Your task to perform on an android device: Search for sushi restaurants on Maps Image 0: 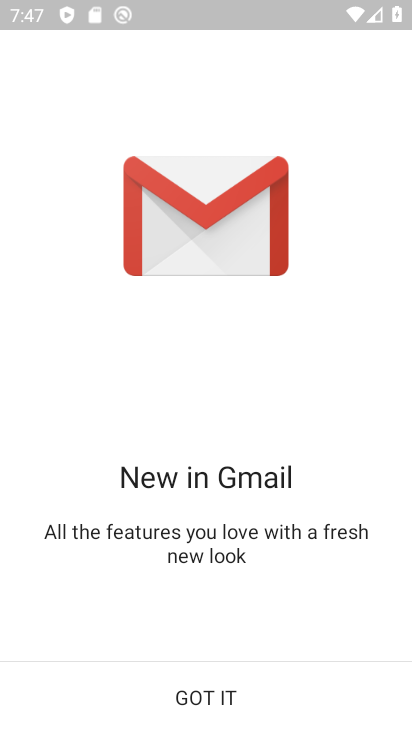
Step 0: drag from (333, 586) to (342, 326)
Your task to perform on an android device: Search for sushi restaurants on Maps Image 1: 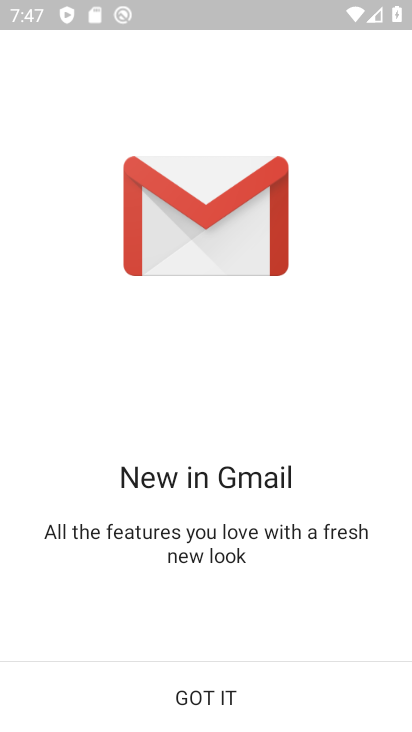
Step 1: press home button
Your task to perform on an android device: Search for sushi restaurants on Maps Image 2: 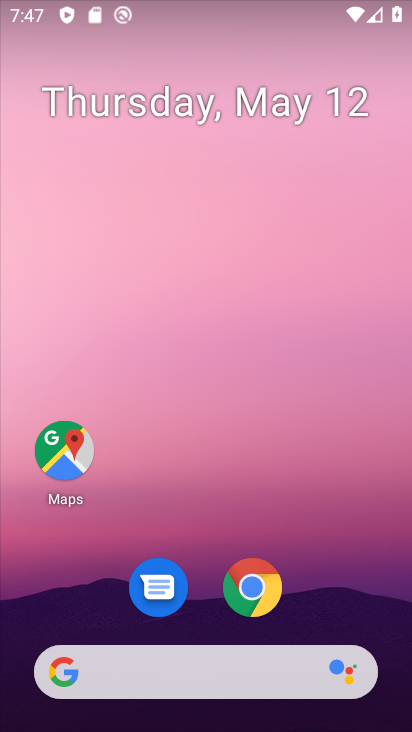
Step 2: drag from (323, 569) to (360, 330)
Your task to perform on an android device: Search for sushi restaurants on Maps Image 3: 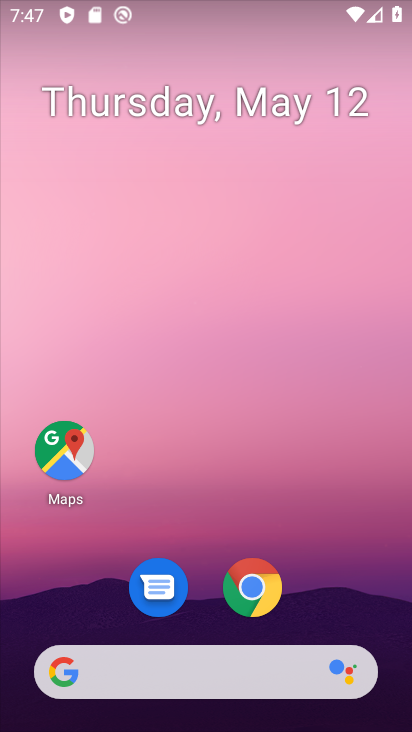
Step 3: click (253, 583)
Your task to perform on an android device: Search for sushi restaurants on Maps Image 4: 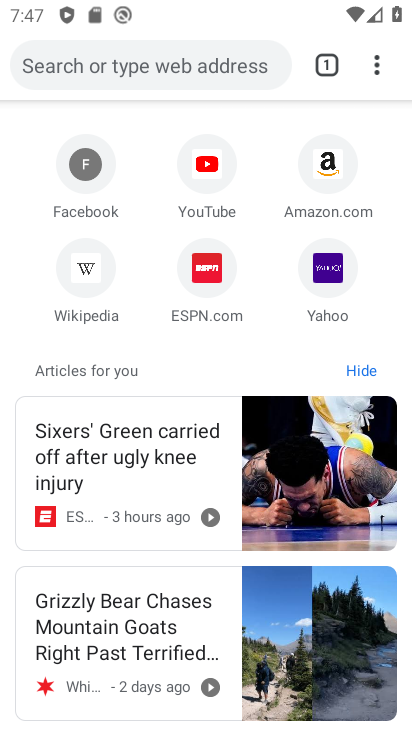
Step 4: click (135, 67)
Your task to perform on an android device: Search for sushi restaurants on Maps Image 5: 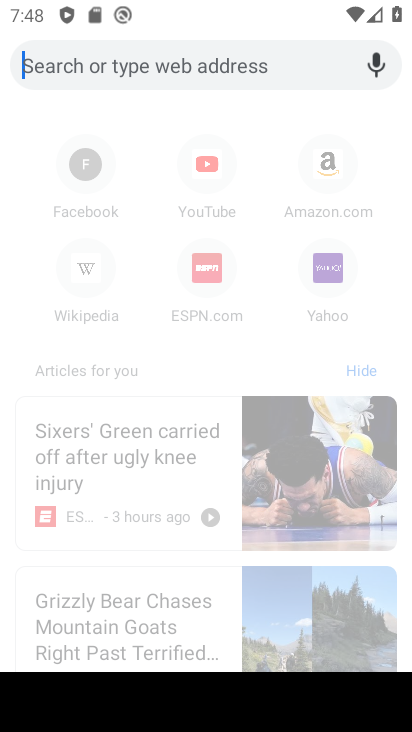
Step 5: click (153, 53)
Your task to perform on an android device: Search for sushi restaurants on Maps Image 6: 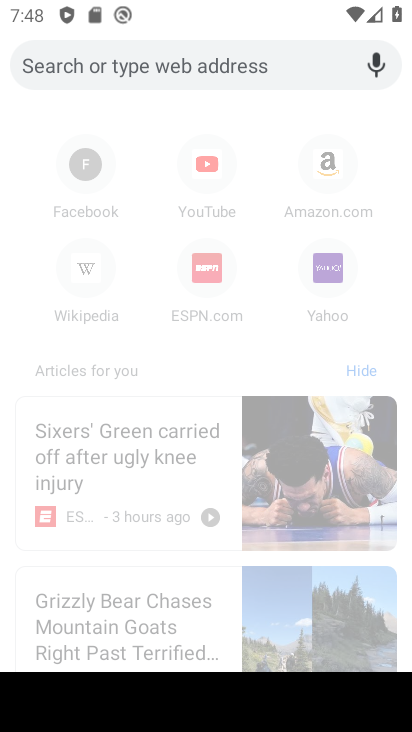
Step 6: click (130, 62)
Your task to perform on an android device: Search for sushi restaurants on Maps Image 7: 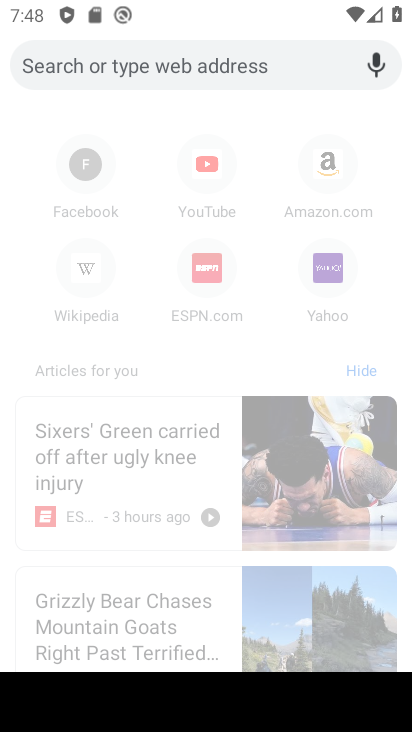
Step 7: type " sushi restaurants"
Your task to perform on an android device: Search for sushi restaurants on Maps Image 8: 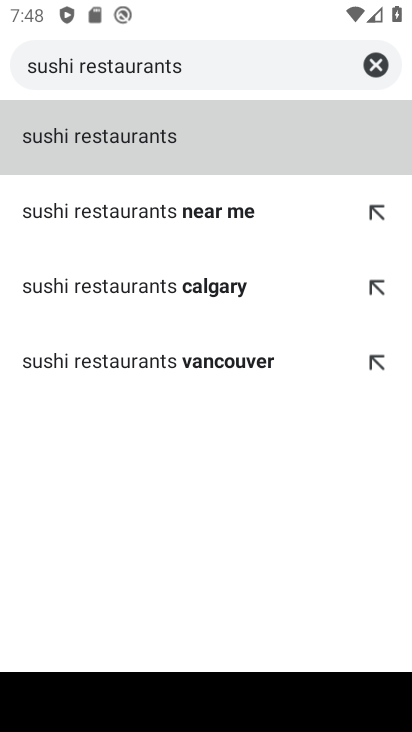
Step 8: click (166, 125)
Your task to perform on an android device: Search for sushi restaurants on Maps Image 9: 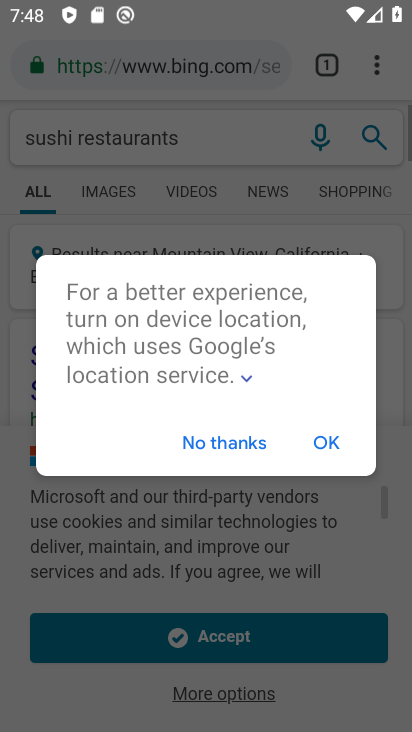
Step 9: click (345, 438)
Your task to perform on an android device: Search for sushi restaurants on Maps Image 10: 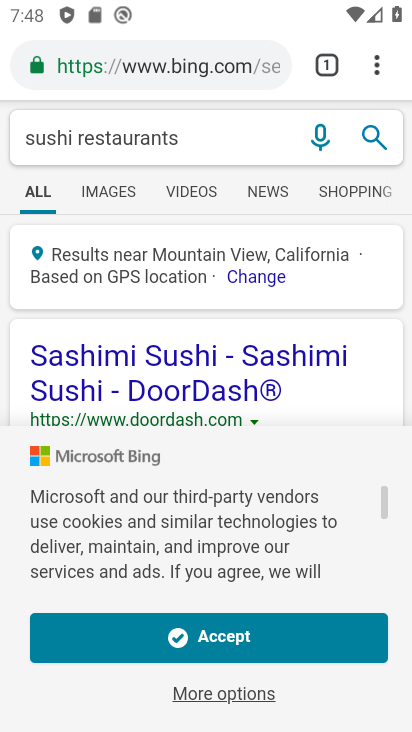
Step 10: click (240, 646)
Your task to perform on an android device: Search for sushi restaurants on Maps Image 11: 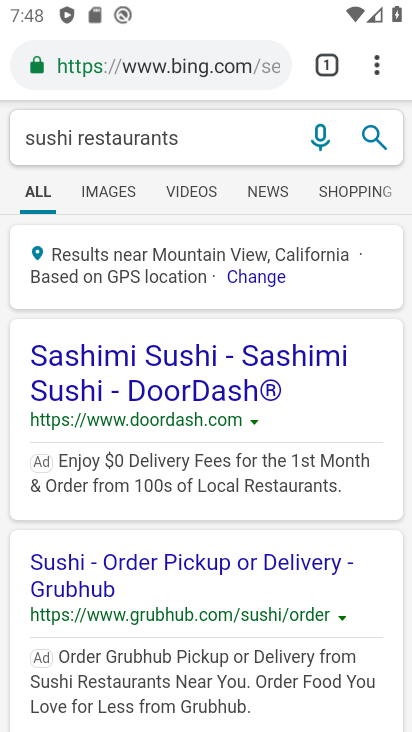
Step 11: task complete